Your task to perform on an android device: Open Yahoo.com Image 0: 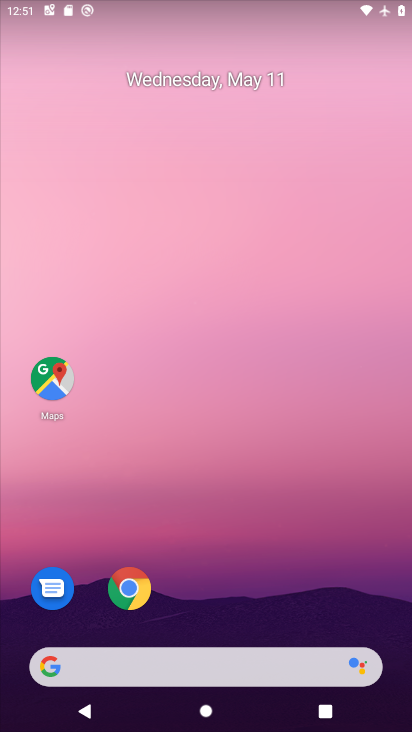
Step 0: click (133, 586)
Your task to perform on an android device: Open Yahoo.com Image 1: 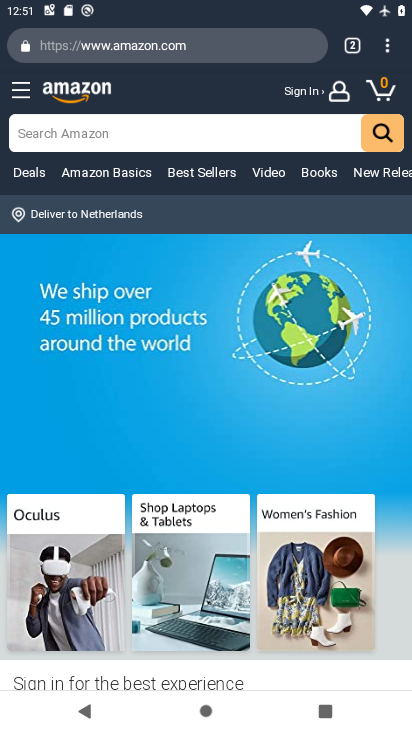
Step 1: press home button
Your task to perform on an android device: Open Yahoo.com Image 2: 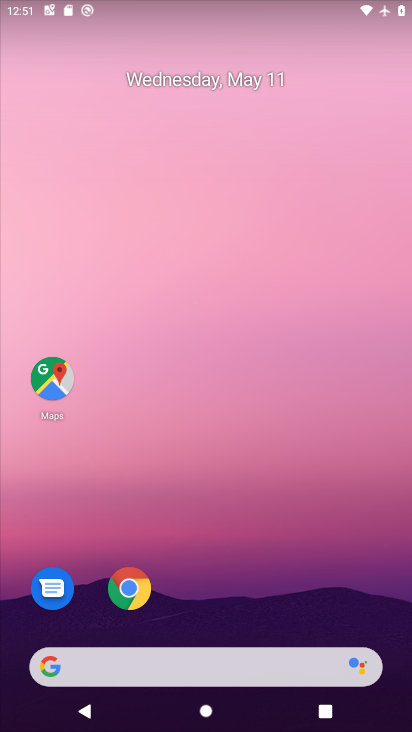
Step 2: click (133, 584)
Your task to perform on an android device: Open Yahoo.com Image 3: 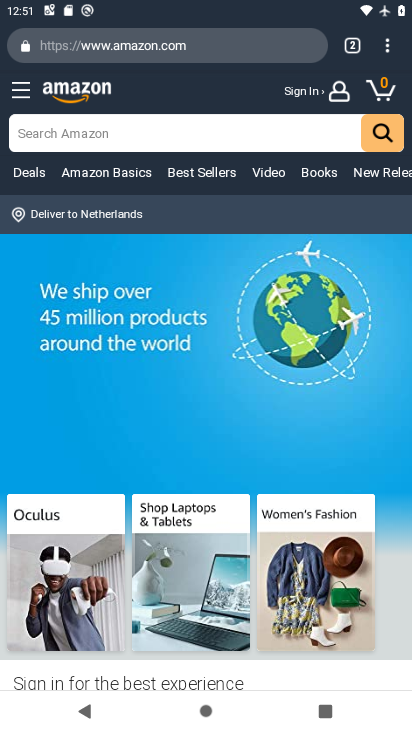
Step 3: click (356, 47)
Your task to perform on an android device: Open Yahoo.com Image 4: 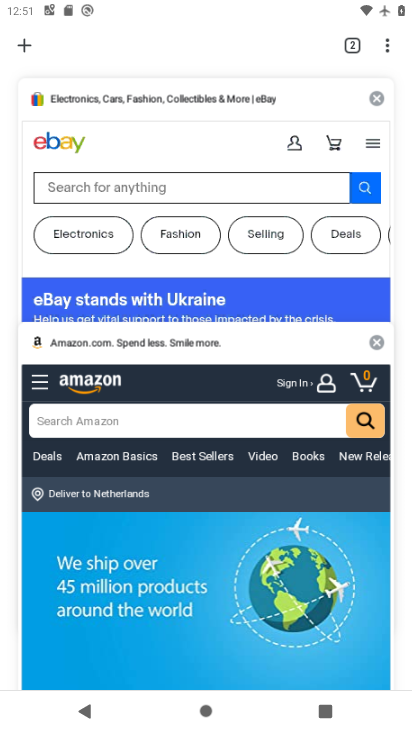
Step 4: click (376, 99)
Your task to perform on an android device: Open Yahoo.com Image 5: 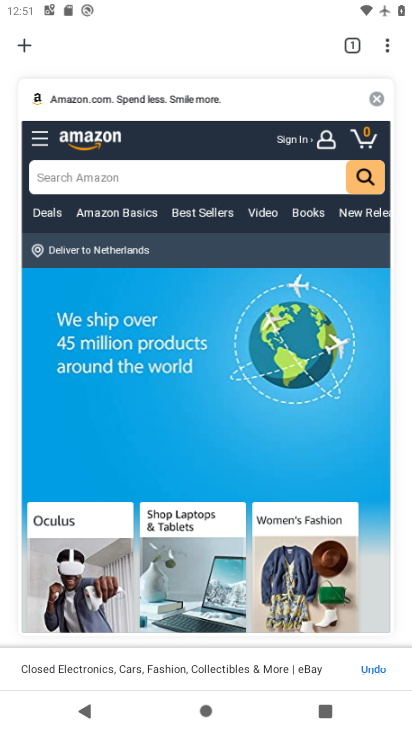
Step 5: click (376, 99)
Your task to perform on an android device: Open Yahoo.com Image 6: 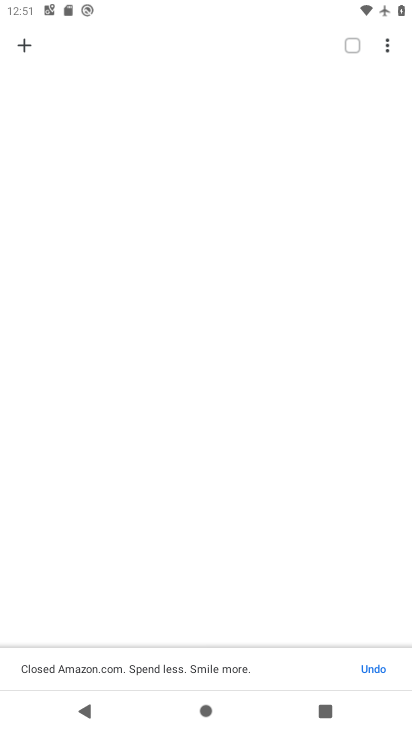
Step 6: click (19, 45)
Your task to perform on an android device: Open Yahoo.com Image 7: 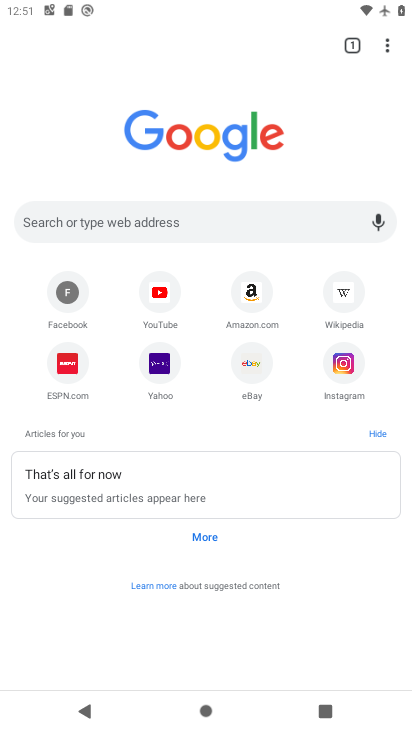
Step 7: click (115, 221)
Your task to perform on an android device: Open Yahoo.com Image 8: 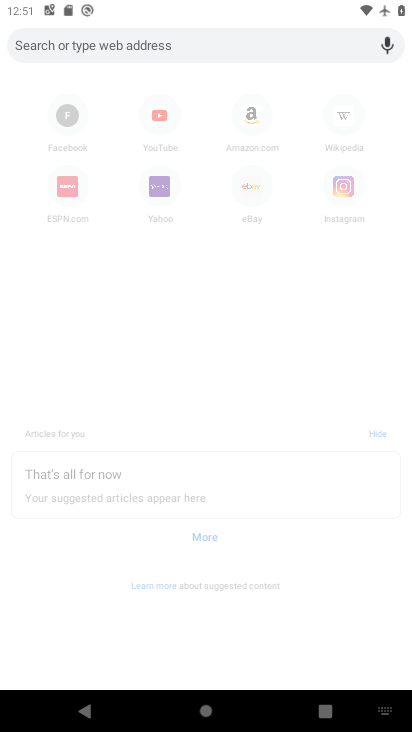
Step 8: click (98, 360)
Your task to perform on an android device: Open Yahoo.com Image 9: 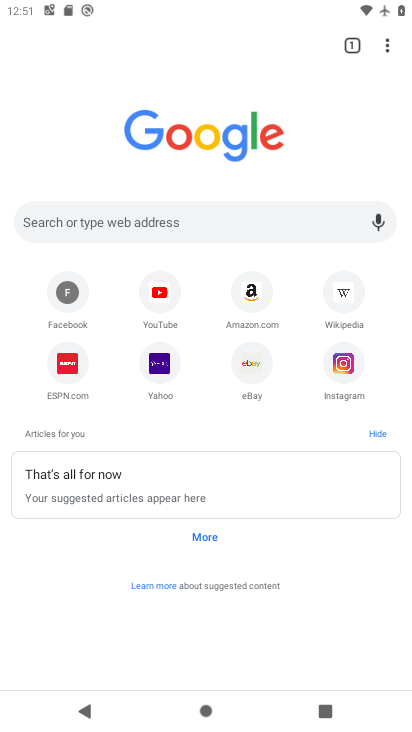
Step 9: click (156, 365)
Your task to perform on an android device: Open Yahoo.com Image 10: 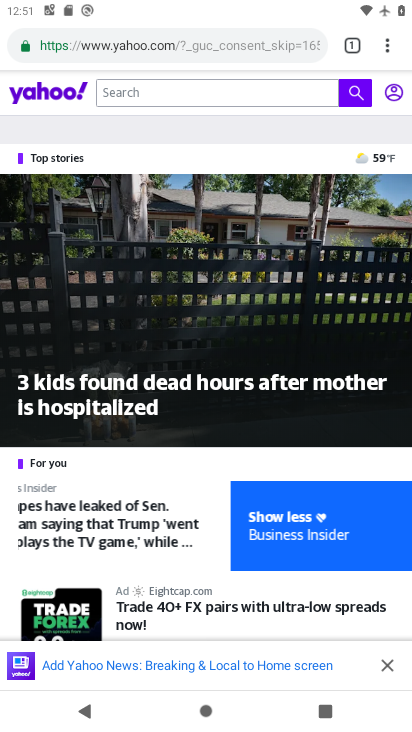
Step 10: task complete